Your task to perform on an android device: turn on airplane mode Image 0: 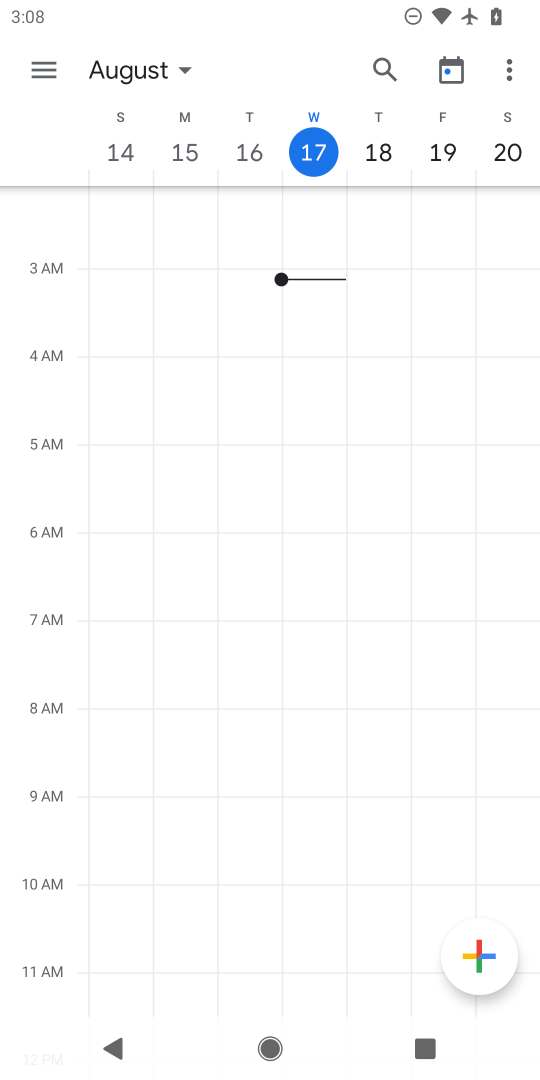
Step 0: press home button
Your task to perform on an android device: turn on airplane mode Image 1: 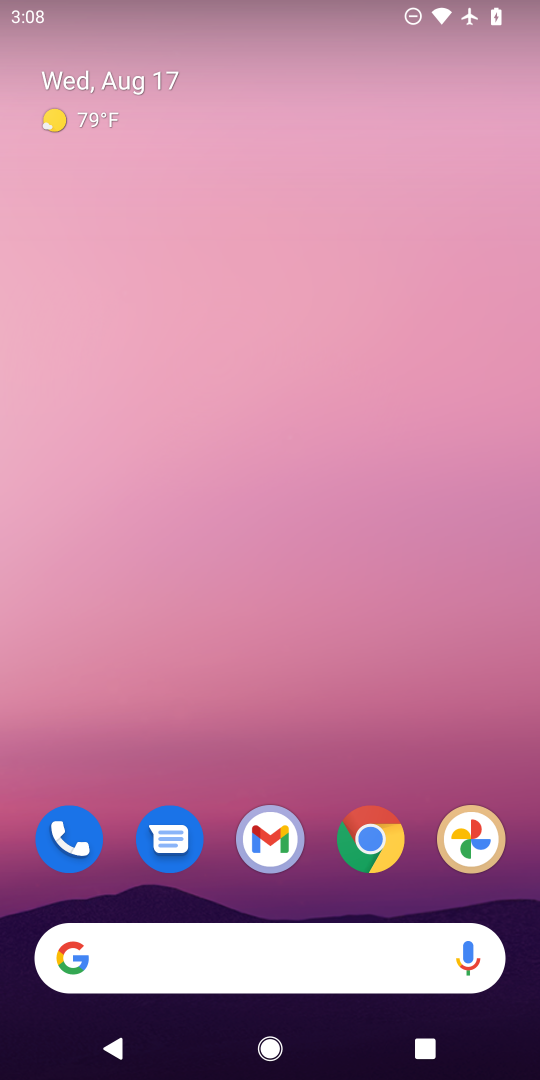
Step 1: drag from (318, 748) to (320, 91)
Your task to perform on an android device: turn on airplane mode Image 2: 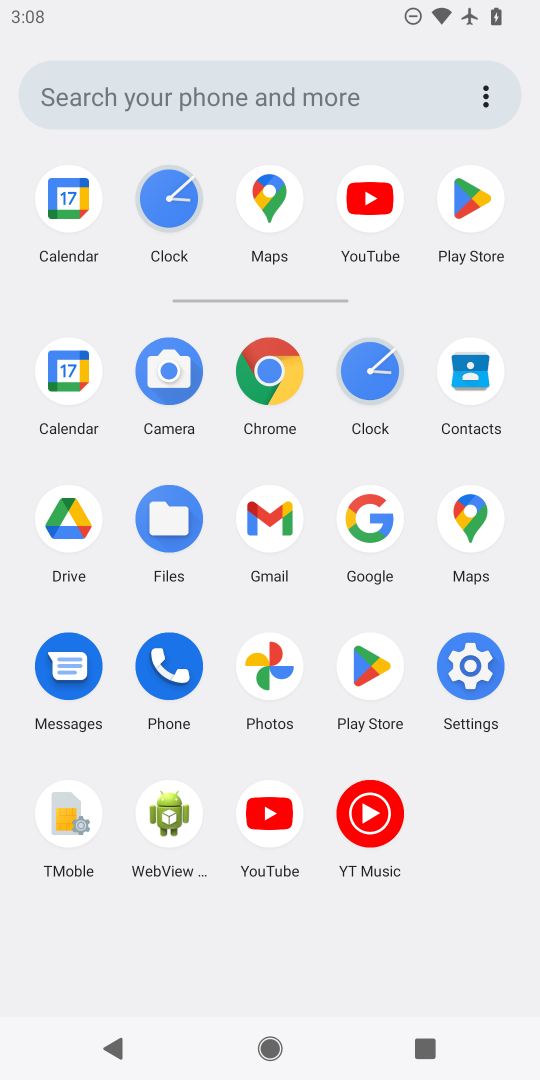
Step 2: click (454, 663)
Your task to perform on an android device: turn on airplane mode Image 3: 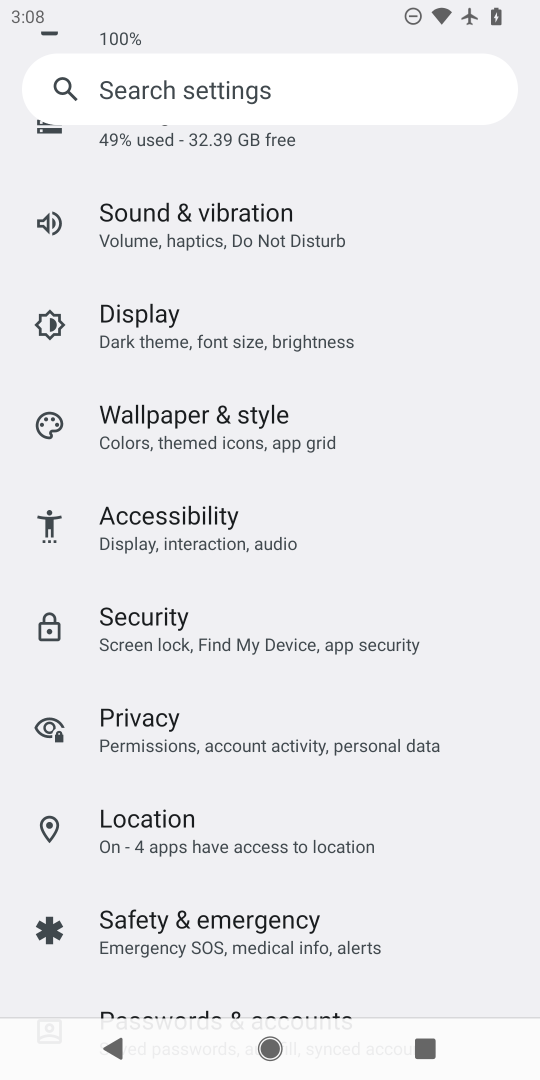
Step 3: drag from (156, 231) to (170, 863)
Your task to perform on an android device: turn on airplane mode Image 4: 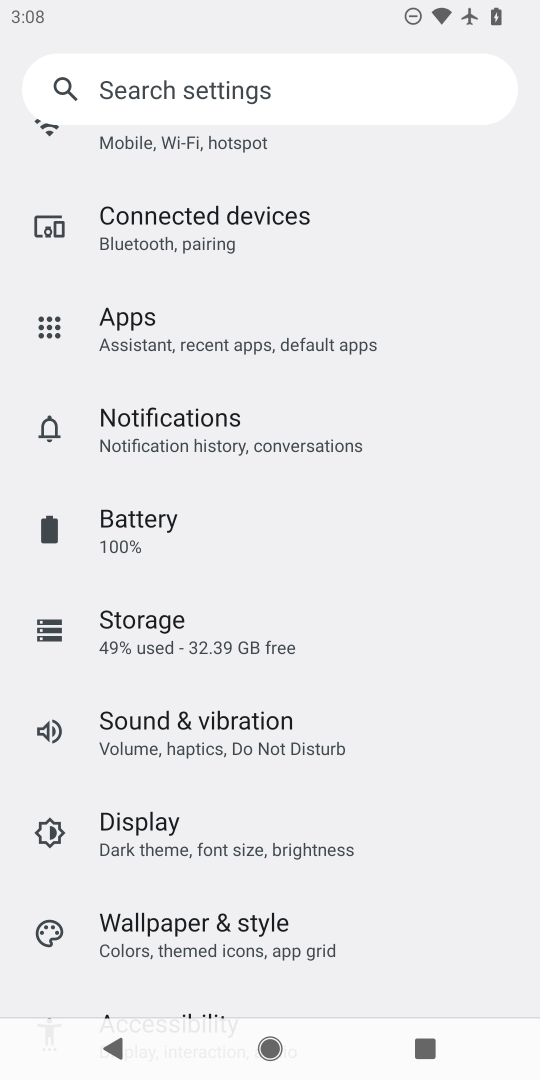
Step 4: drag from (251, 240) to (239, 740)
Your task to perform on an android device: turn on airplane mode Image 5: 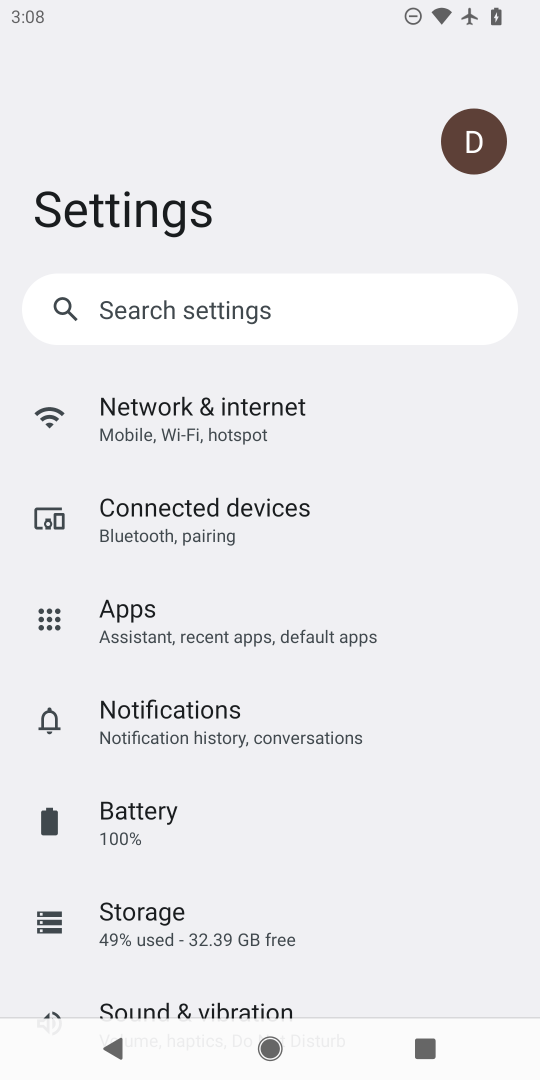
Step 5: click (156, 418)
Your task to perform on an android device: turn on airplane mode Image 6: 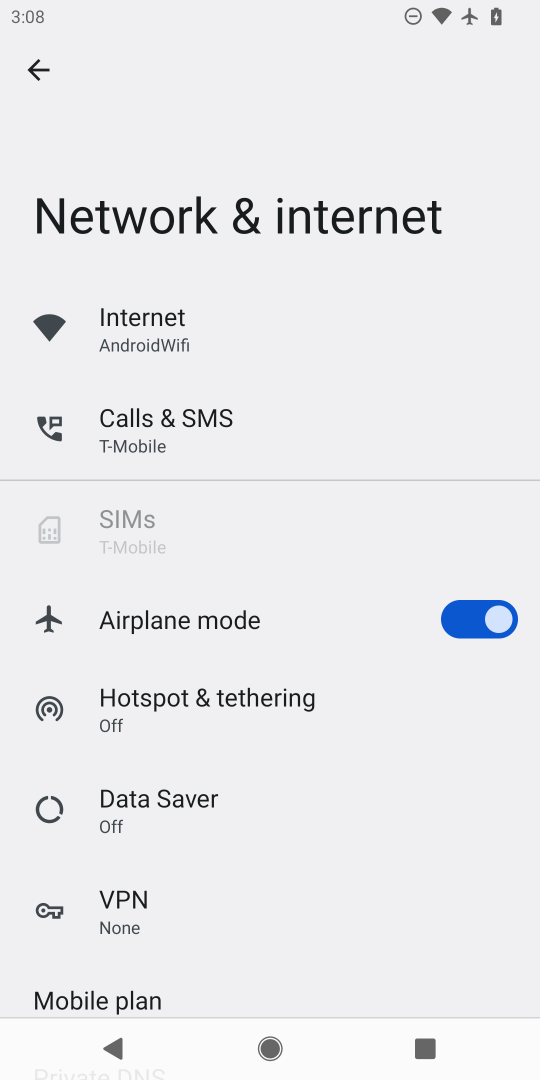
Step 6: task complete